Your task to perform on an android device: turn on bluetooth scan Image 0: 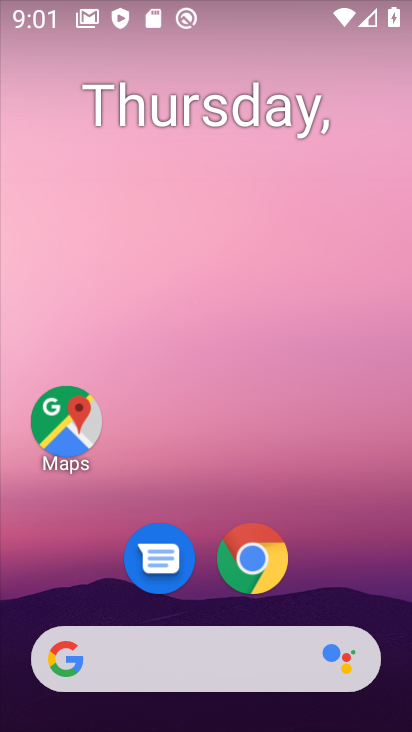
Step 0: drag from (398, 647) to (293, 137)
Your task to perform on an android device: turn on bluetooth scan Image 1: 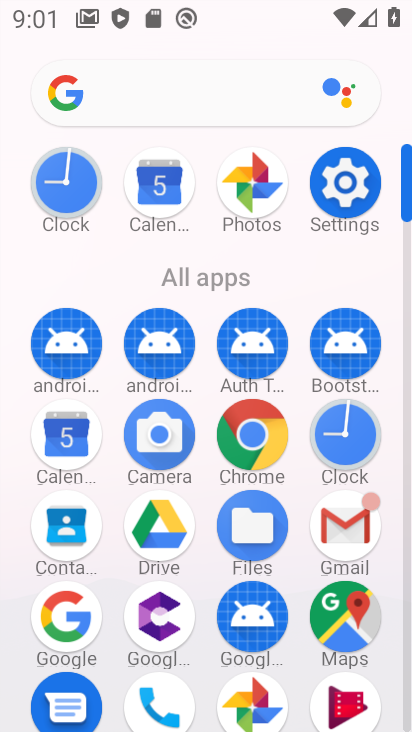
Step 1: click (409, 706)
Your task to perform on an android device: turn on bluetooth scan Image 2: 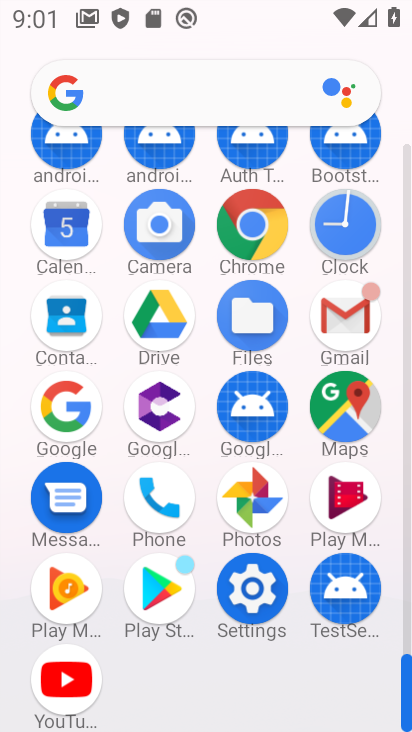
Step 2: click (252, 589)
Your task to perform on an android device: turn on bluetooth scan Image 3: 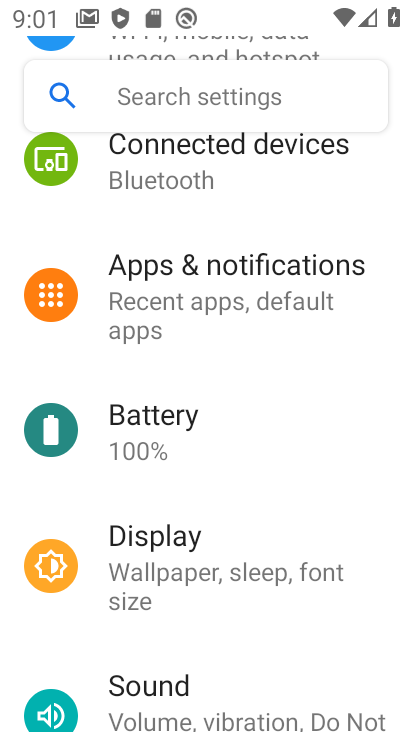
Step 3: drag from (357, 607) to (351, 210)
Your task to perform on an android device: turn on bluetooth scan Image 4: 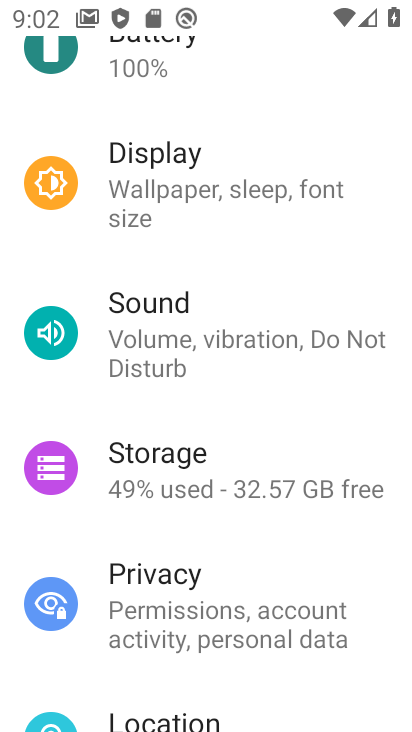
Step 4: drag from (356, 552) to (364, 237)
Your task to perform on an android device: turn on bluetooth scan Image 5: 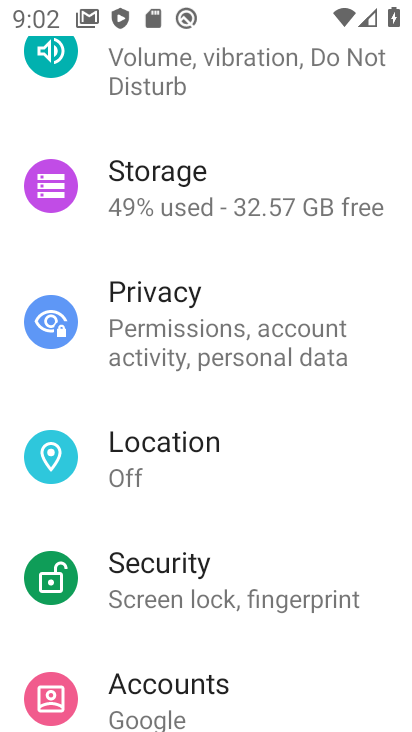
Step 5: click (159, 466)
Your task to perform on an android device: turn on bluetooth scan Image 6: 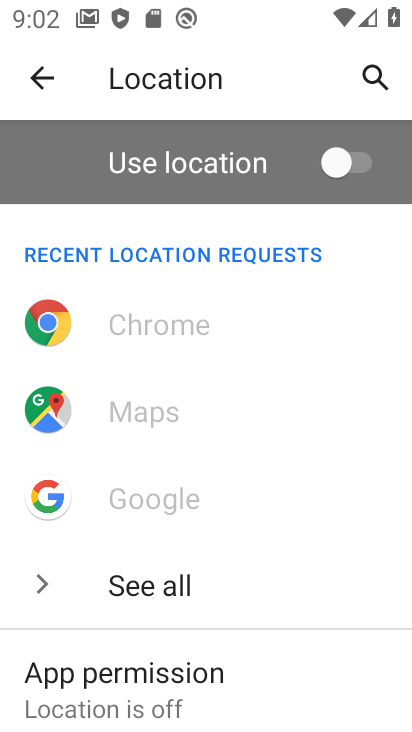
Step 6: drag from (310, 665) to (325, 232)
Your task to perform on an android device: turn on bluetooth scan Image 7: 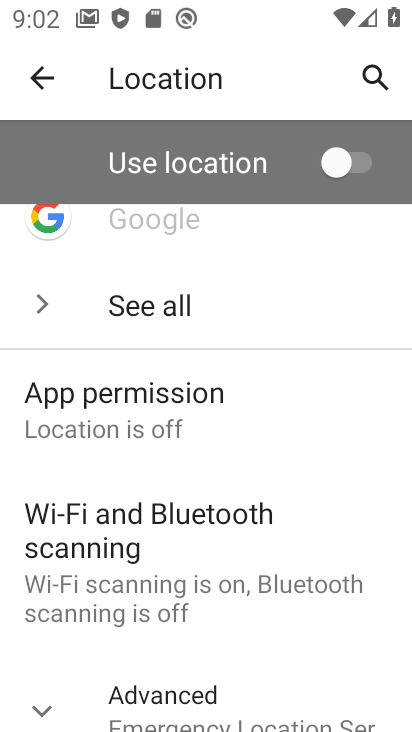
Step 7: click (113, 546)
Your task to perform on an android device: turn on bluetooth scan Image 8: 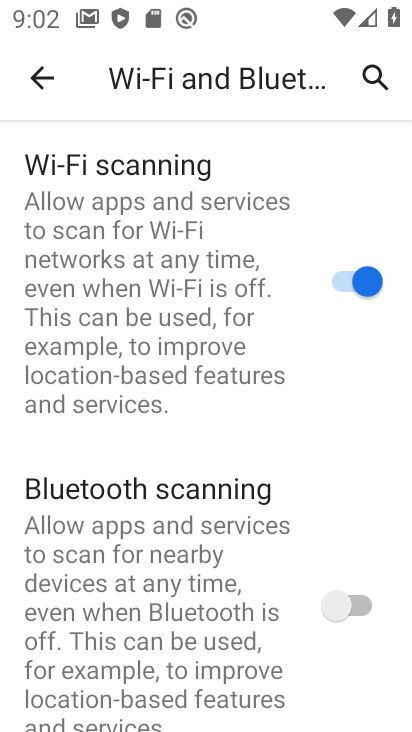
Step 8: click (358, 602)
Your task to perform on an android device: turn on bluetooth scan Image 9: 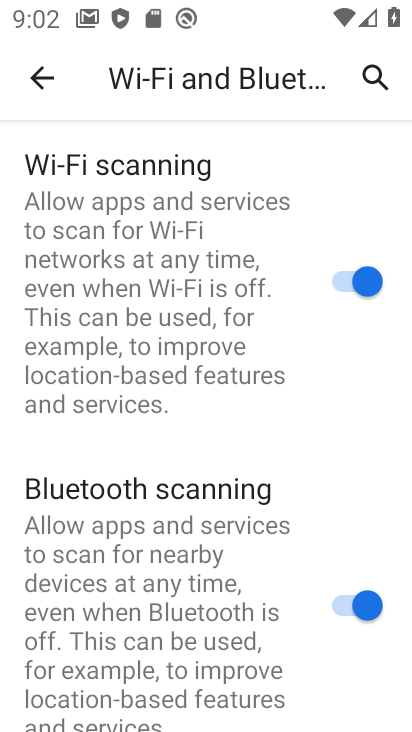
Step 9: task complete